Your task to perform on an android device: turn vacation reply on in the gmail app Image 0: 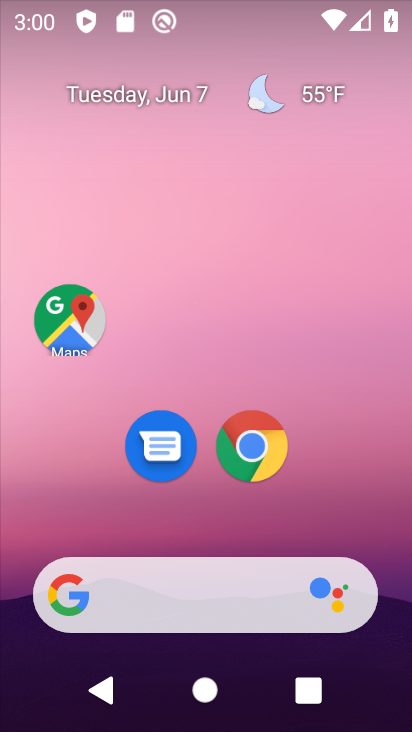
Step 0: drag from (252, 568) to (241, 88)
Your task to perform on an android device: turn vacation reply on in the gmail app Image 1: 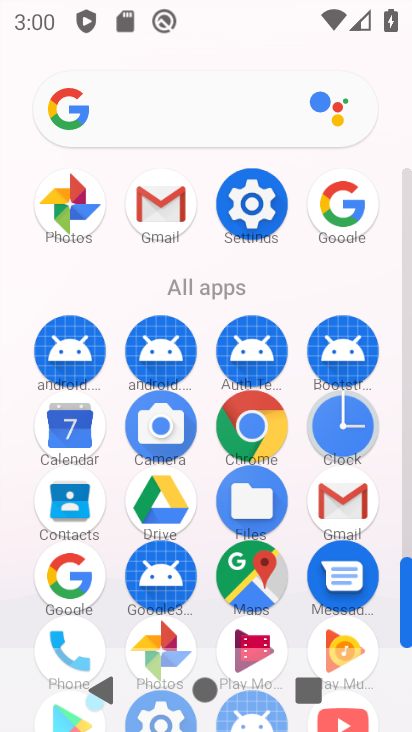
Step 1: click (339, 520)
Your task to perform on an android device: turn vacation reply on in the gmail app Image 2: 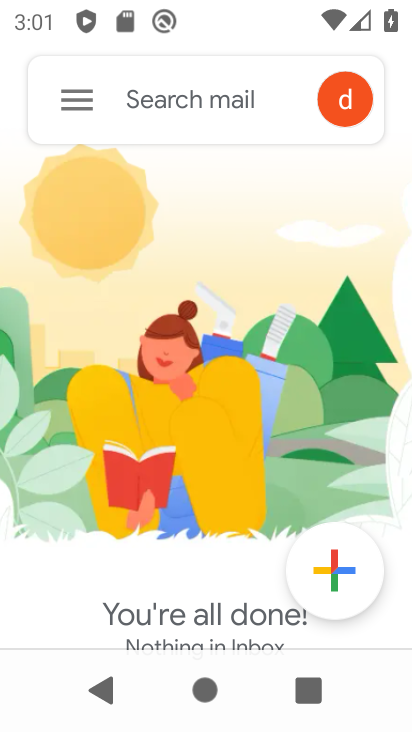
Step 2: click (63, 117)
Your task to perform on an android device: turn vacation reply on in the gmail app Image 3: 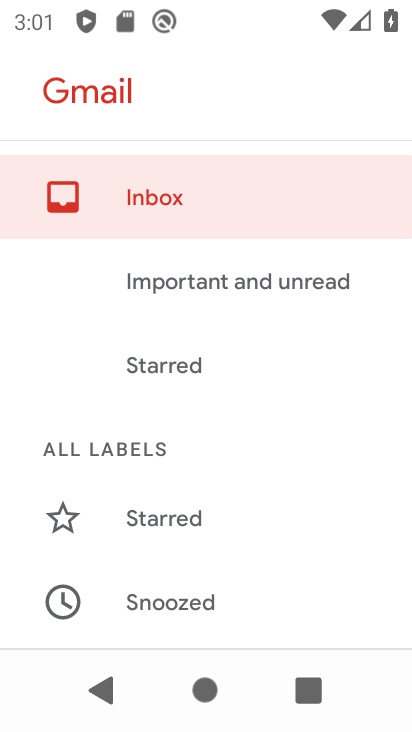
Step 3: drag from (137, 490) to (158, 43)
Your task to perform on an android device: turn vacation reply on in the gmail app Image 4: 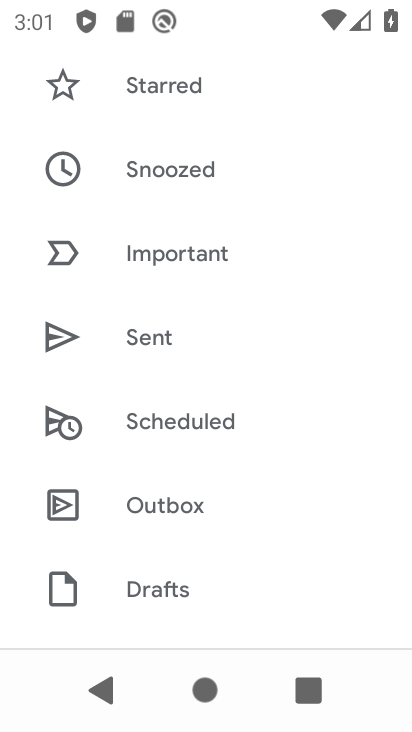
Step 4: drag from (222, 595) to (217, 61)
Your task to perform on an android device: turn vacation reply on in the gmail app Image 5: 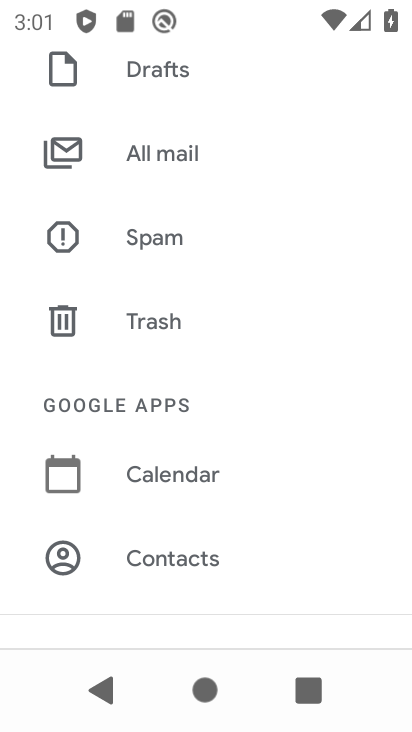
Step 5: drag from (184, 578) to (189, 73)
Your task to perform on an android device: turn vacation reply on in the gmail app Image 6: 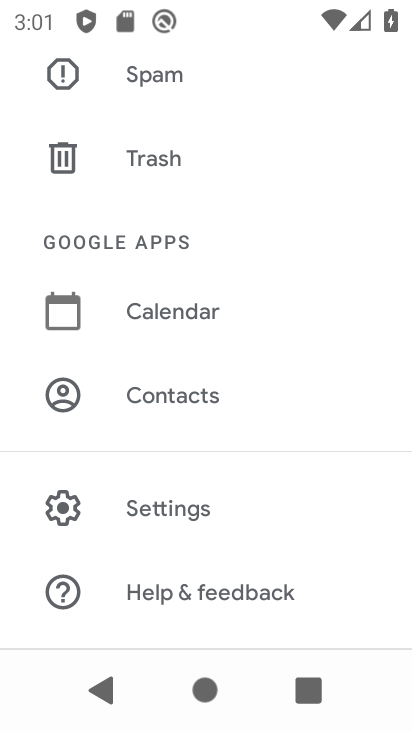
Step 6: click (93, 489)
Your task to perform on an android device: turn vacation reply on in the gmail app Image 7: 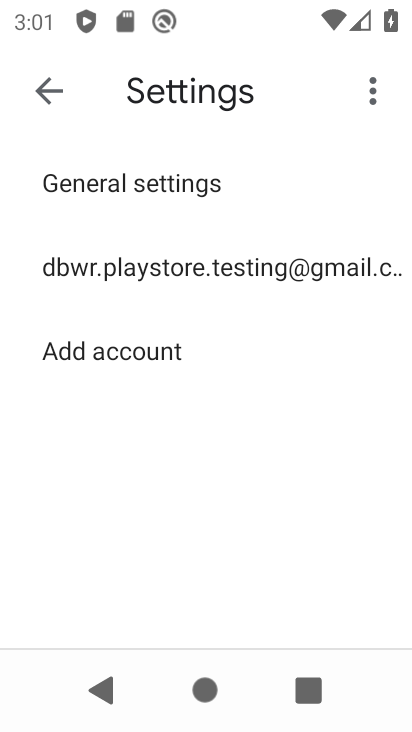
Step 7: click (191, 270)
Your task to perform on an android device: turn vacation reply on in the gmail app Image 8: 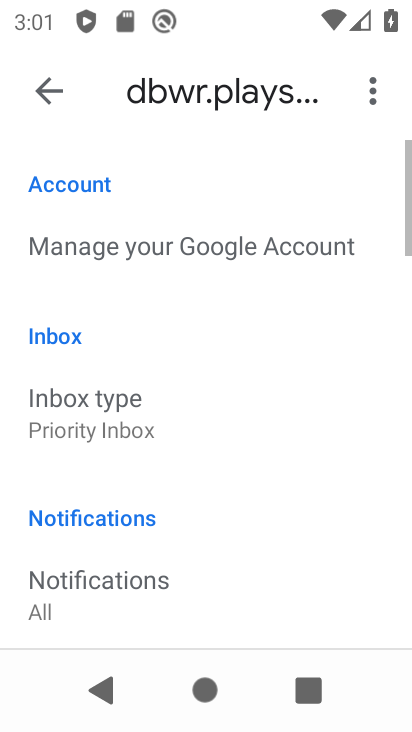
Step 8: click (95, 424)
Your task to perform on an android device: turn vacation reply on in the gmail app Image 9: 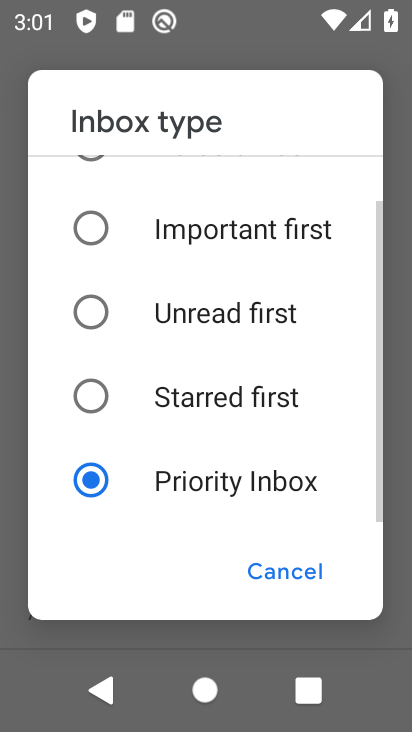
Step 9: click (286, 589)
Your task to perform on an android device: turn vacation reply on in the gmail app Image 10: 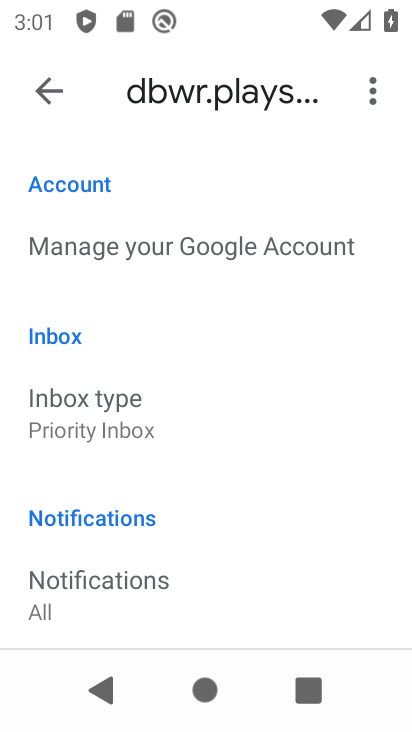
Step 10: drag from (287, 588) to (279, 2)
Your task to perform on an android device: turn vacation reply on in the gmail app Image 11: 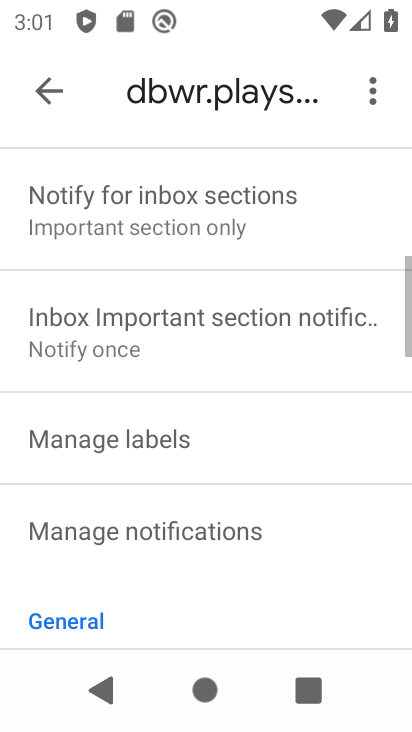
Step 11: drag from (202, 525) to (187, 103)
Your task to perform on an android device: turn vacation reply on in the gmail app Image 12: 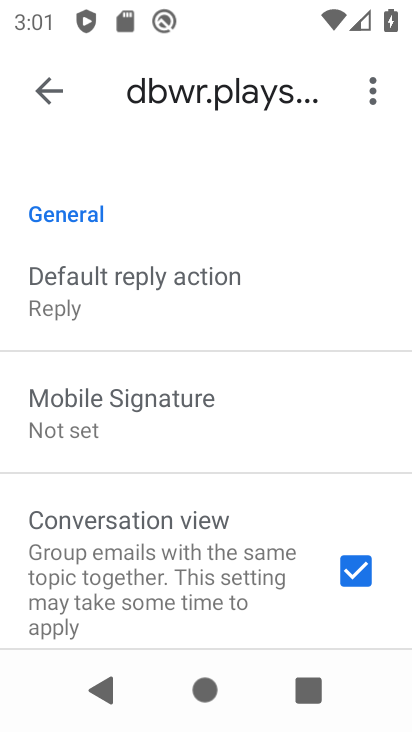
Step 12: drag from (185, 498) to (148, 97)
Your task to perform on an android device: turn vacation reply on in the gmail app Image 13: 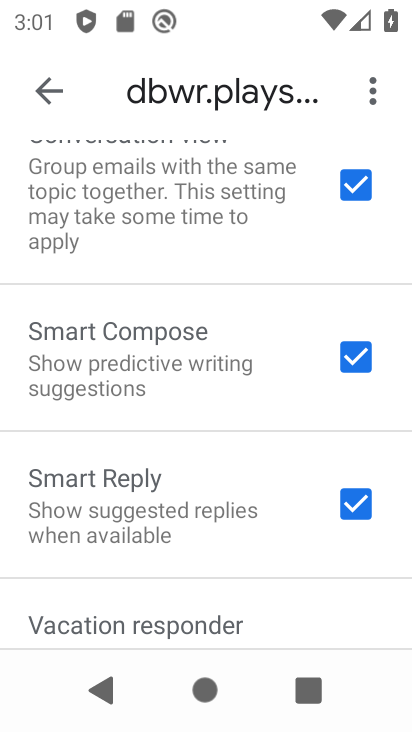
Step 13: drag from (177, 482) to (178, 169)
Your task to perform on an android device: turn vacation reply on in the gmail app Image 14: 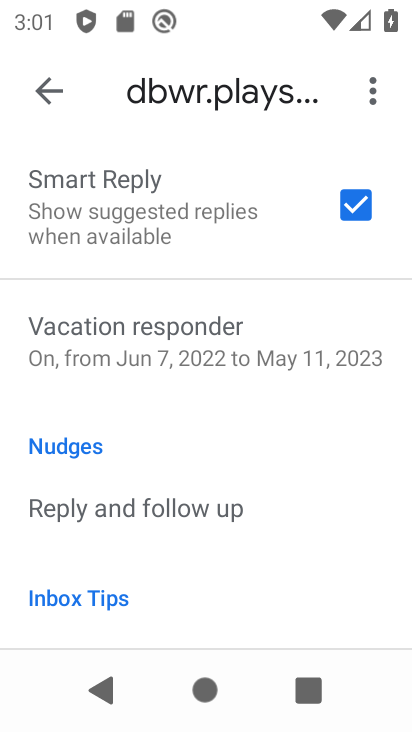
Step 14: click (129, 498)
Your task to perform on an android device: turn vacation reply on in the gmail app Image 15: 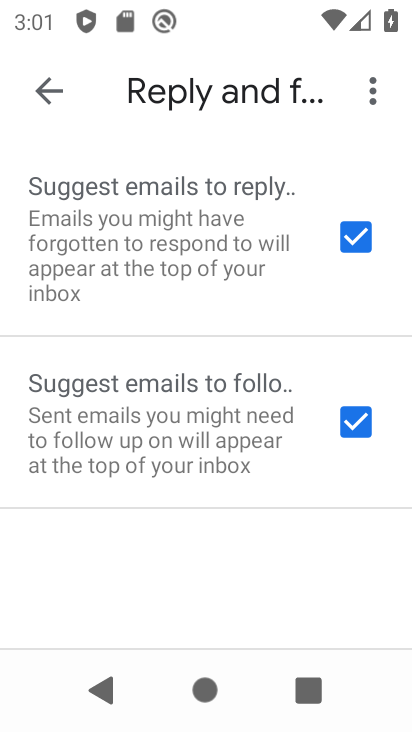
Step 15: click (39, 86)
Your task to perform on an android device: turn vacation reply on in the gmail app Image 16: 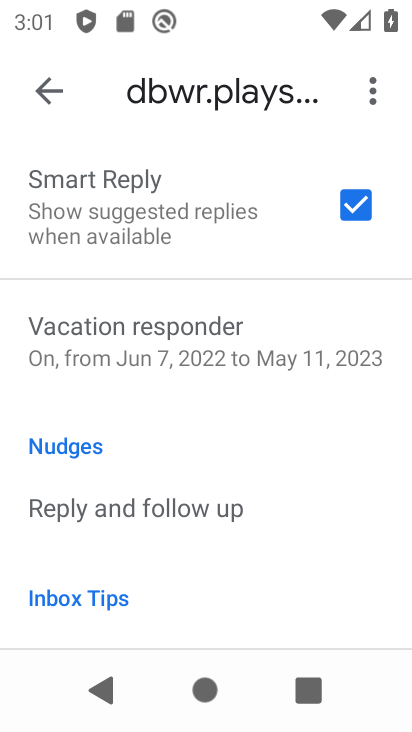
Step 16: click (172, 402)
Your task to perform on an android device: turn vacation reply on in the gmail app Image 17: 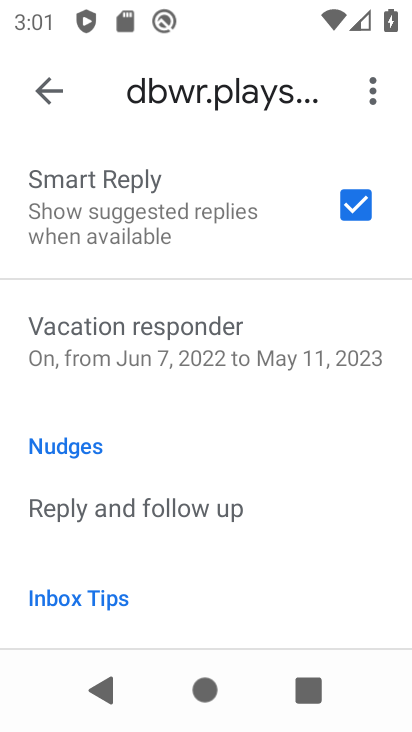
Step 17: task complete